Your task to perform on an android device: turn off javascript in the chrome app Image 0: 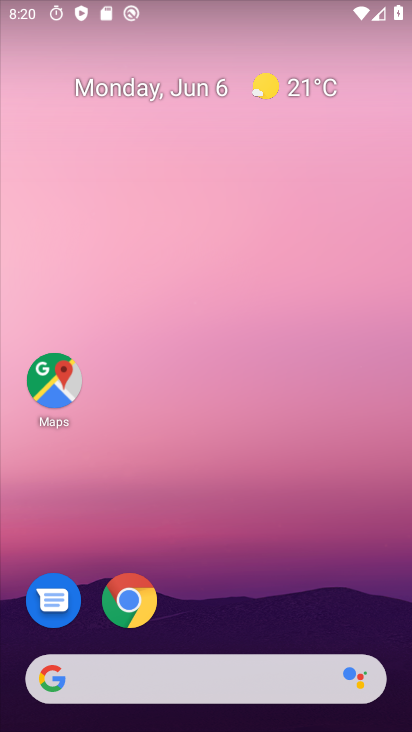
Step 0: drag from (229, 494) to (196, 31)
Your task to perform on an android device: turn off javascript in the chrome app Image 1: 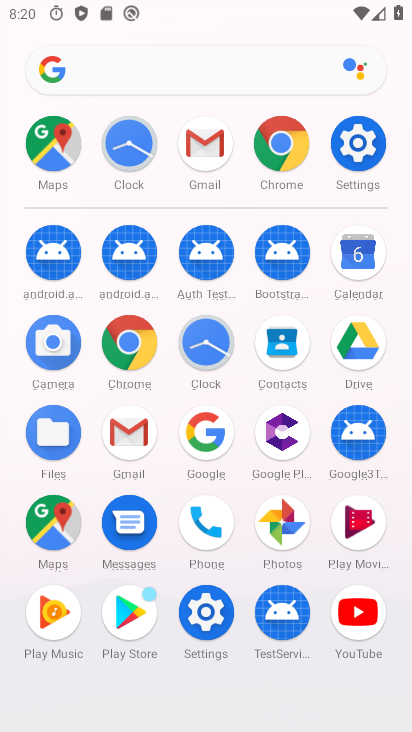
Step 1: drag from (3, 537) to (0, 222)
Your task to perform on an android device: turn off javascript in the chrome app Image 2: 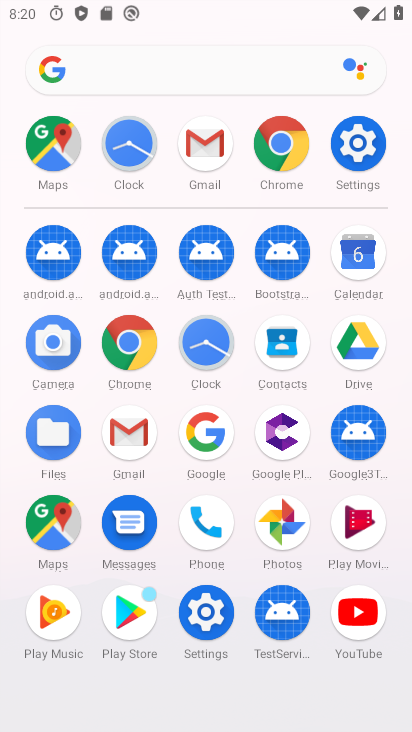
Step 2: click (121, 336)
Your task to perform on an android device: turn off javascript in the chrome app Image 3: 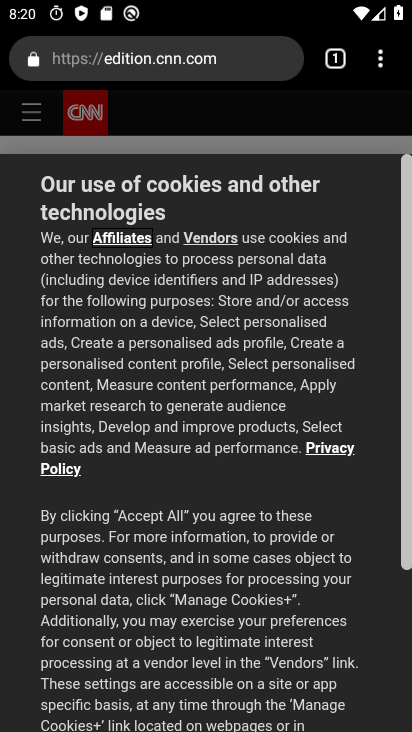
Step 3: drag from (380, 58) to (194, 646)
Your task to perform on an android device: turn off javascript in the chrome app Image 4: 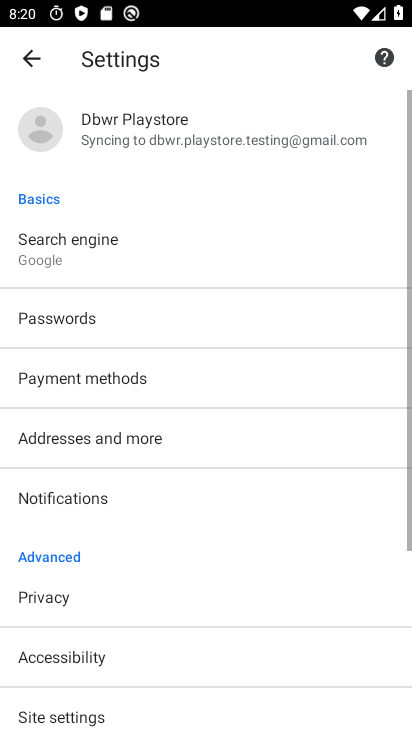
Step 4: drag from (280, 606) to (294, 151)
Your task to perform on an android device: turn off javascript in the chrome app Image 5: 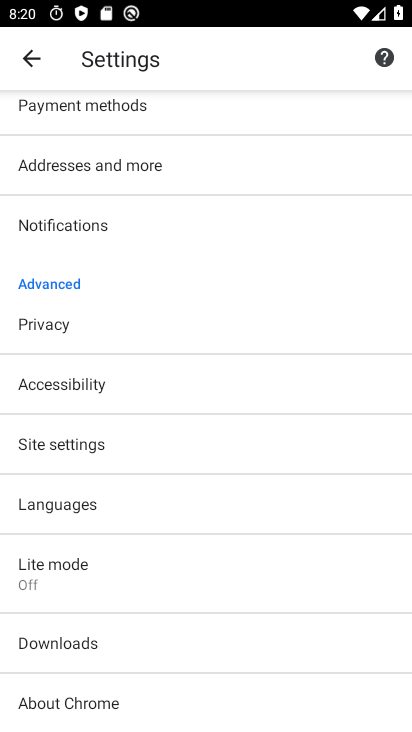
Step 5: drag from (204, 673) to (271, 303)
Your task to perform on an android device: turn off javascript in the chrome app Image 6: 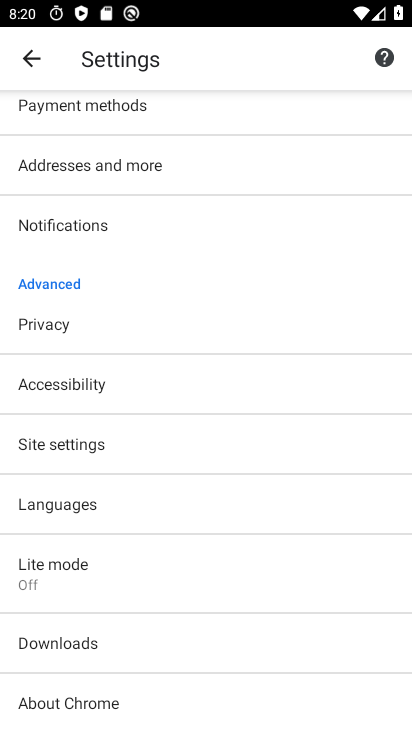
Step 6: click (111, 444)
Your task to perform on an android device: turn off javascript in the chrome app Image 7: 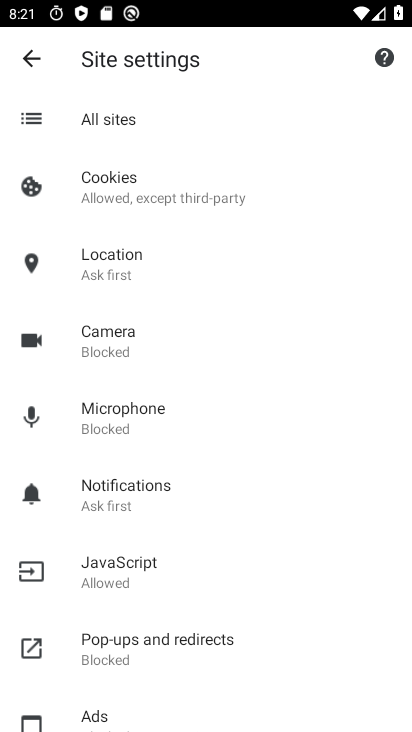
Step 7: click (154, 578)
Your task to perform on an android device: turn off javascript in the chrome app Image 8: 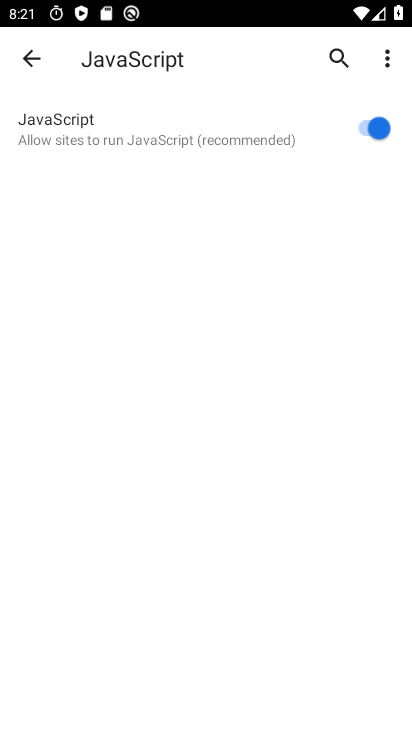
Step 8: click (359, 113)
Your task to perform on an android device: turn off javascript in the chrome app Image 9: 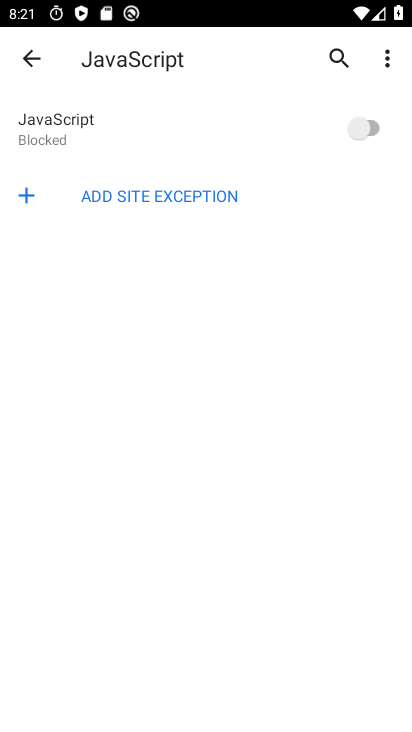
Step 9: task complete